Your task to perform on an android device: Go to Yahoo.com Image 0: 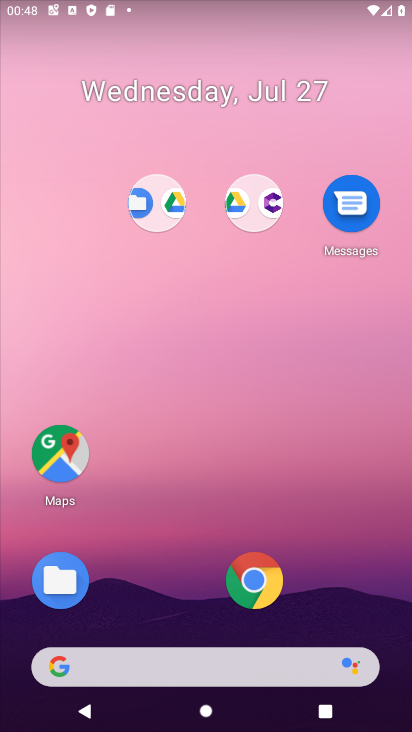
Step 0: click (263, 586)
Your task to perform on an android device: Go to Yahoo.com Image 1: 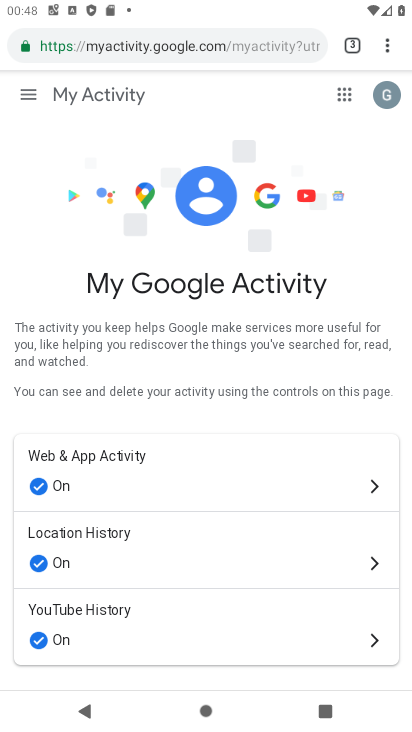
Step 1: click (351, 49)
Your task to perform on an android device: Go to Yahoo.com Image 2: 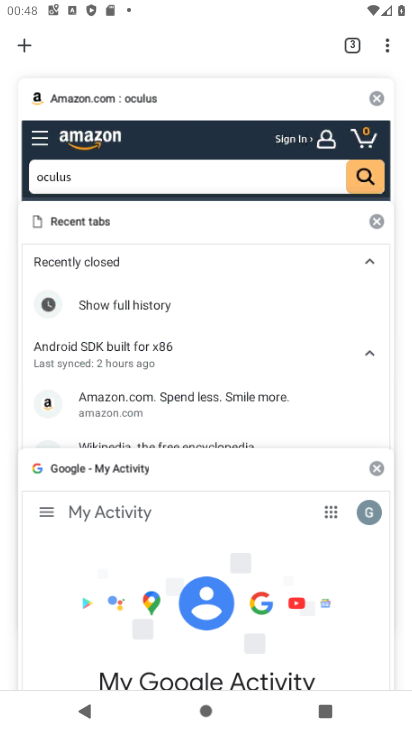
Step 2: click (33, 46)
Your task to perform on an android device: Go to Yahoo.com Image 3: 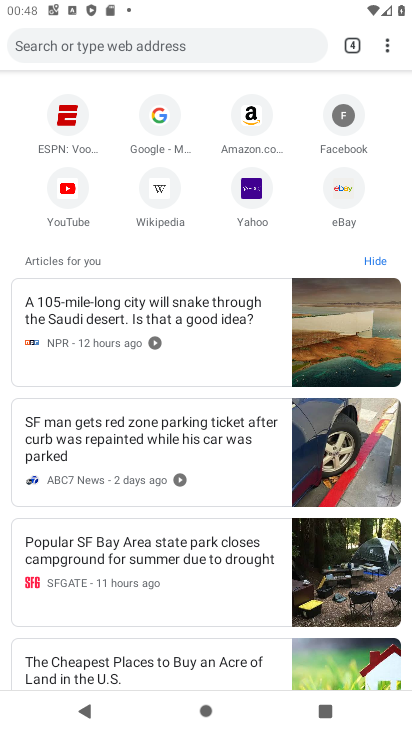
Step 3: click (245, 198)
Your task to perform on an android device: Go to Yahoo.com Image 4: 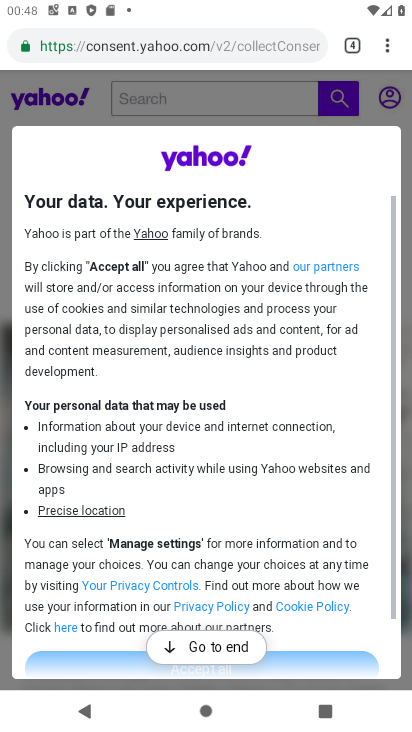
Step 4: task complete